Your task to perform on an android device: What's the weather today? Image 0: 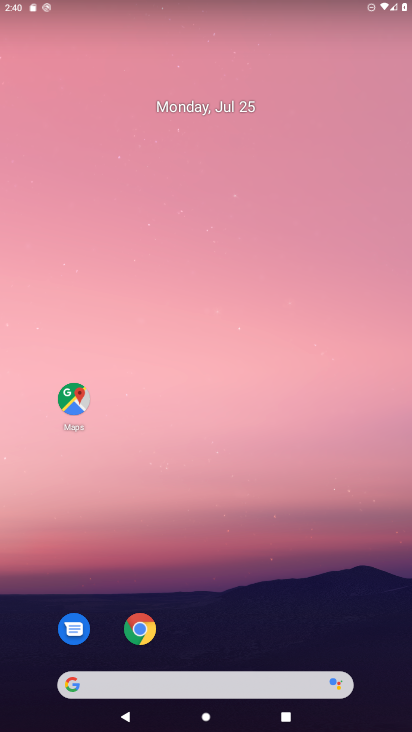
Step 0: drag from (206, 651) to (208, 71)
Your task to perform on an android device: What's the weather today? Image 1: 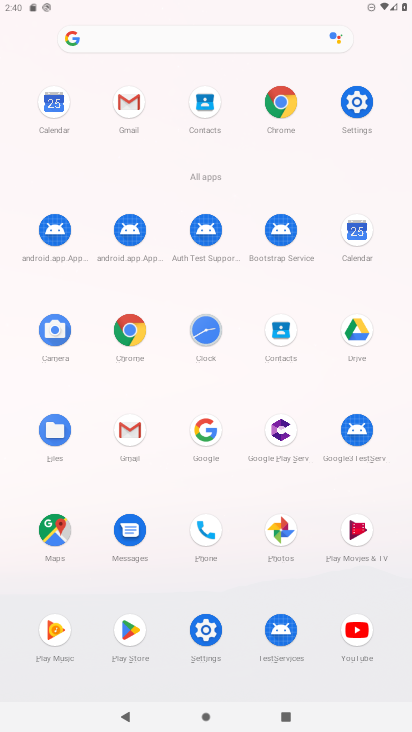
Step 1: click (126, 337)
Your task to perform on an android device: What's the weather today? Image 2: 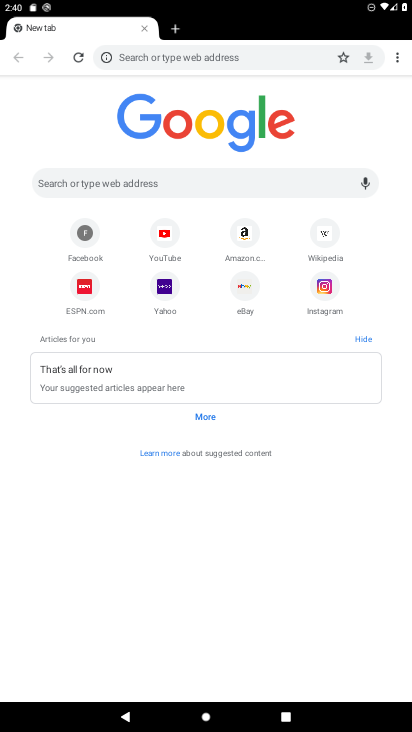
Step 2: click (113, 50)
Your task to perform on an android device: What's the weather today? Image 3: 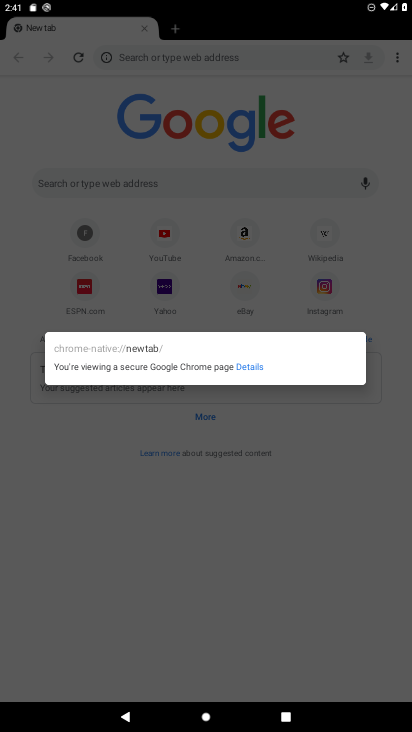
Step 3: click (249, 368)
Your task to perform on an android device: What's the weather today? Image 4: 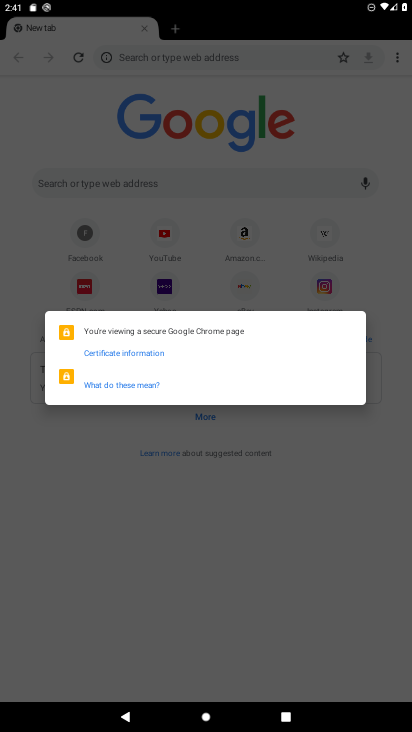
Step 4: click (282, 484)
Your task to perform on an android device: What's the weather today? Image 5: 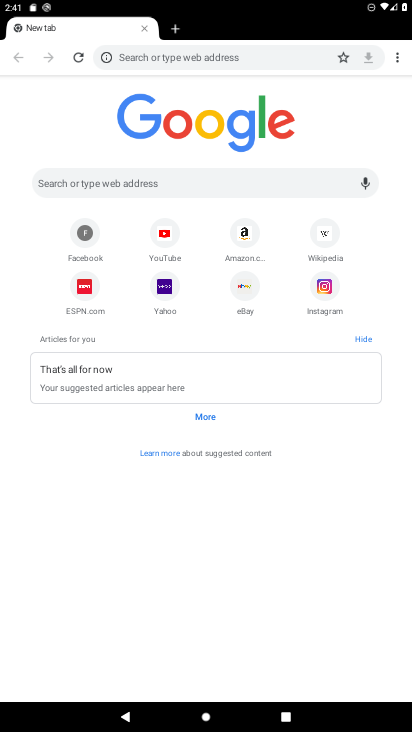
Step 5: click (151, 59)
Your task to perform on an android device: What's the weather today? Image 6: 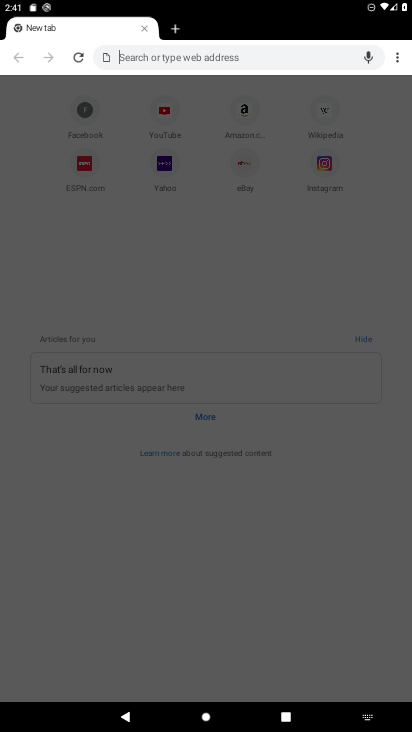
Step 6: type "What's the weather today?"
Your task to perform on an android device: What's the weather today? Image 7: 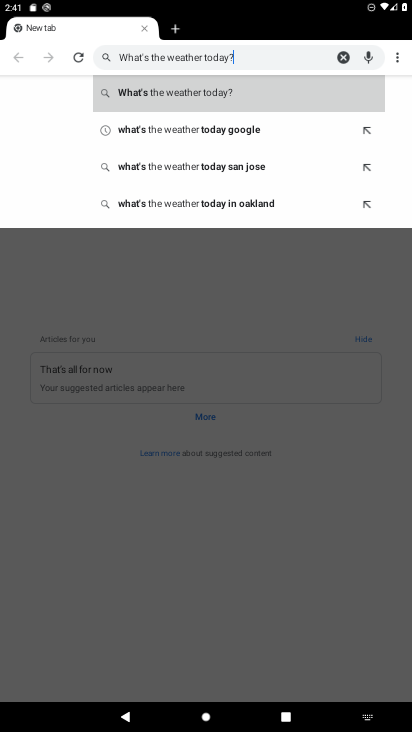
Step 7: click (190, 91)
Your task to perform on an android device: What's the weather today? Image 8: 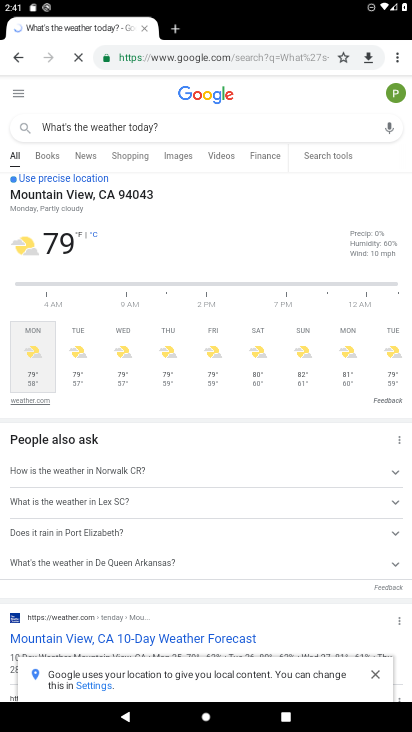
Step 8: task complete